Your task to perform on an android device: View the shopping cart on walmart. Add "razer blade" to the cart on walmart Image 0: 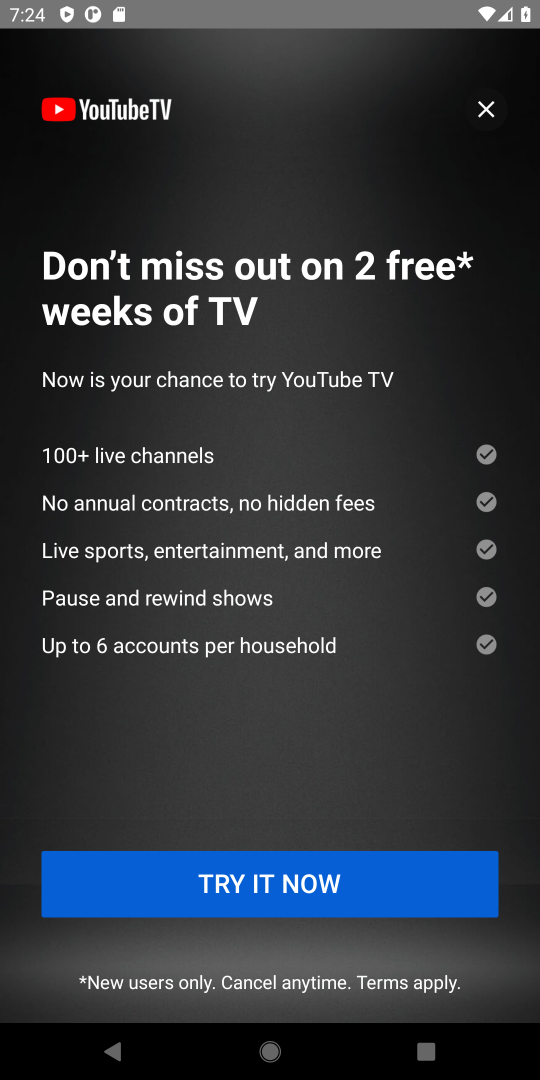
Step 0: press home button
Your task to perform on an android device: View the shopping cart on walmart. Add "razer blade" to the cart on walmart Image 1: 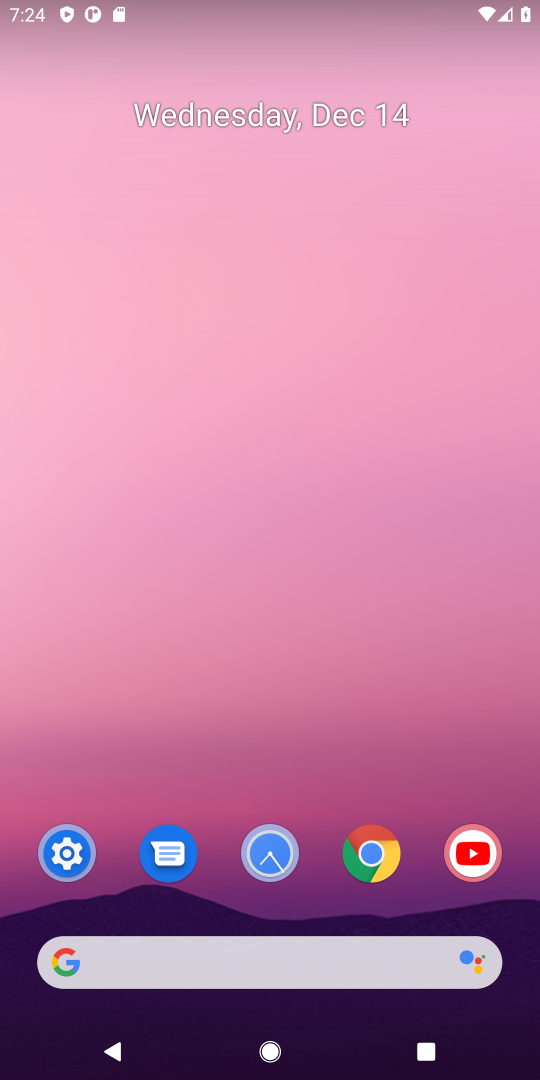
Step 1: click (381, 856)
Your task to perform on an android device: View the shopping cart on walmart. Add "razer blade" to the cart on walmart Image 2: 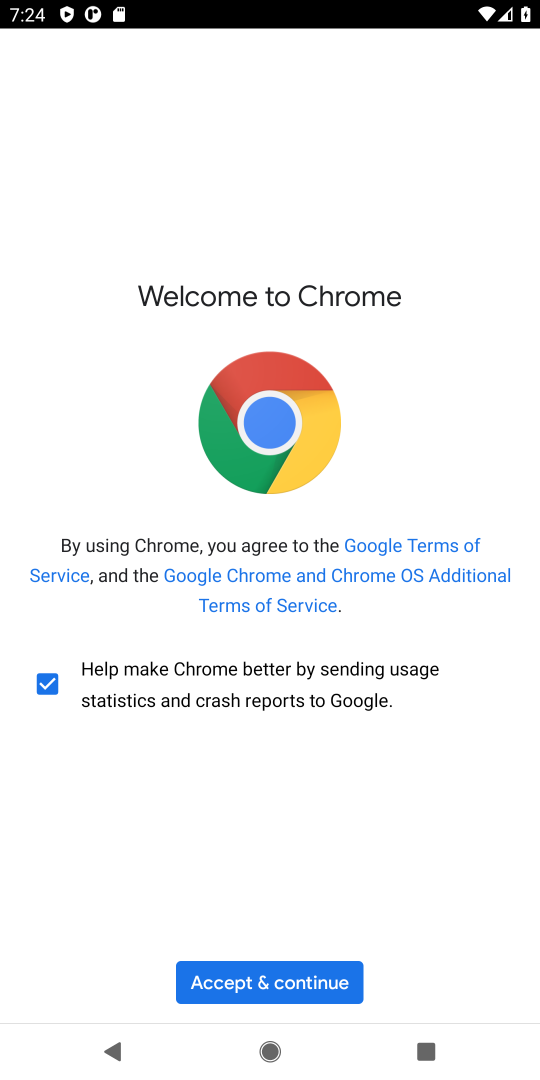
Step 2: click (306, 984)
Your task to perform on an android device: View the shopping cart on walmart. Add "razer blade" to the cart on walmart Image 3: 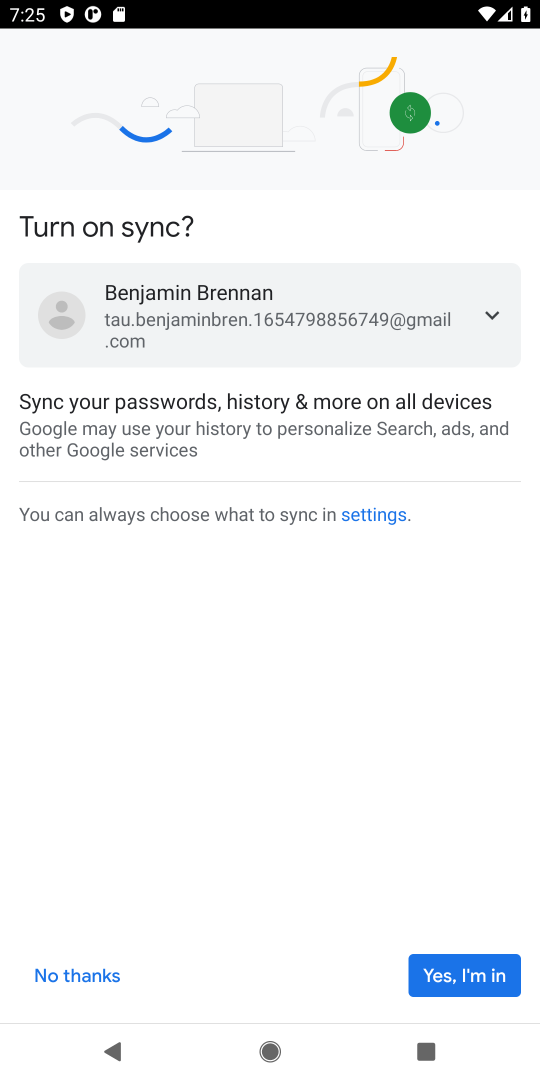
Step 3: click (454, 968)
Your task to perform on an android device: View the shopping cart on walmart. Add "razer blade" to the cart on walmart Image 4: 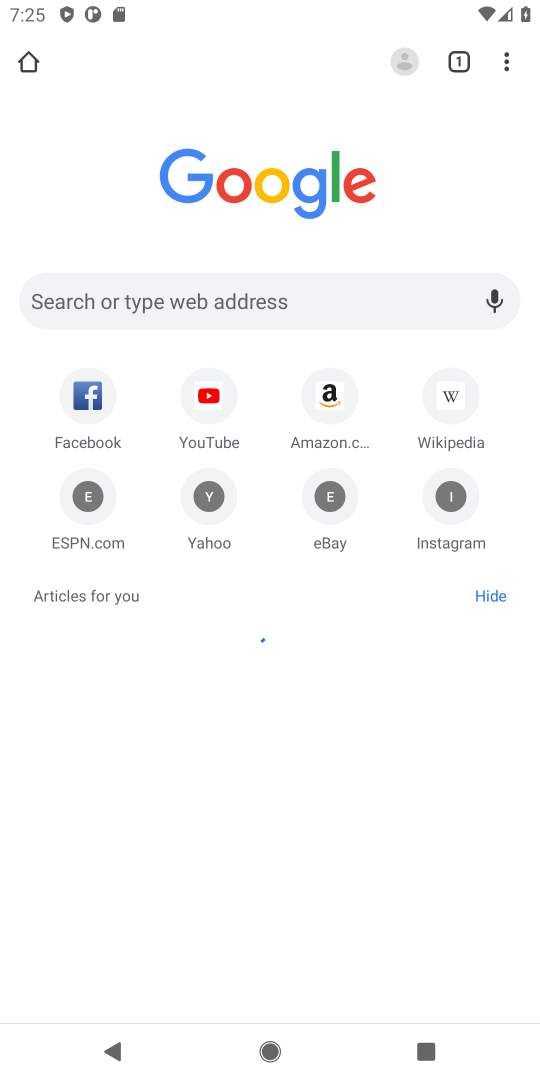
Step 4: click (310, 303)
Your task to perform on an android device: View the shopping cart on walmart. Add "razer blade" to the cart on walmart Image 5: 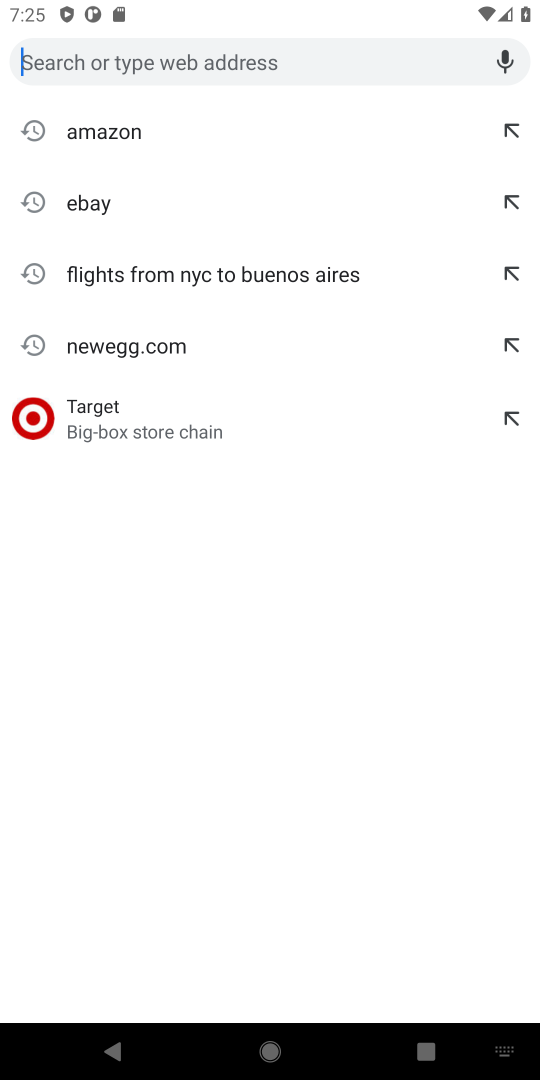
Step 5: type "walmart"
Your task to perform on an android device: View the shopping cart on walmart. Add "razer blade" to the cart on walmart Image 6: 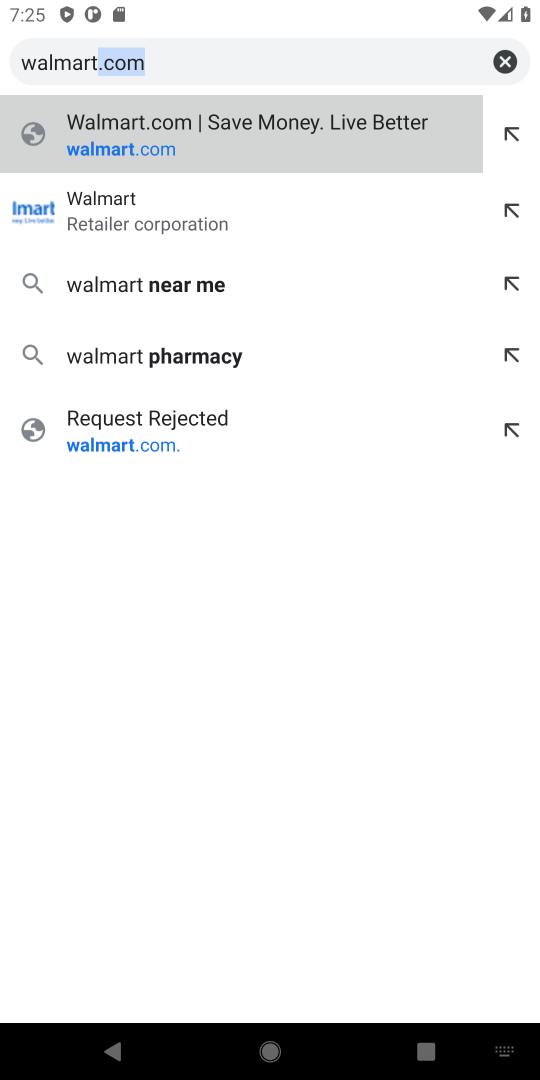
Step 6: click (385, 143)
Your task to perform on an android device: View the shopping cart on walmart. Add "razer blade" to the cart on walmart Image 7: 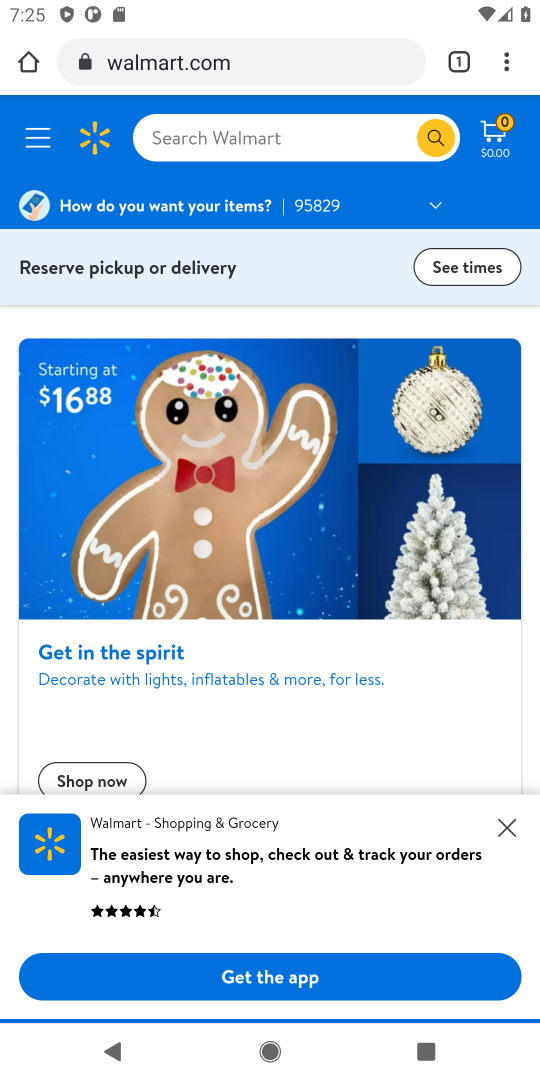
Step 7: click (305, 148)
Your task to perform on an android device: View the shopping cart on walmart. Add "razer blade" to the cart on walmart Image 8: 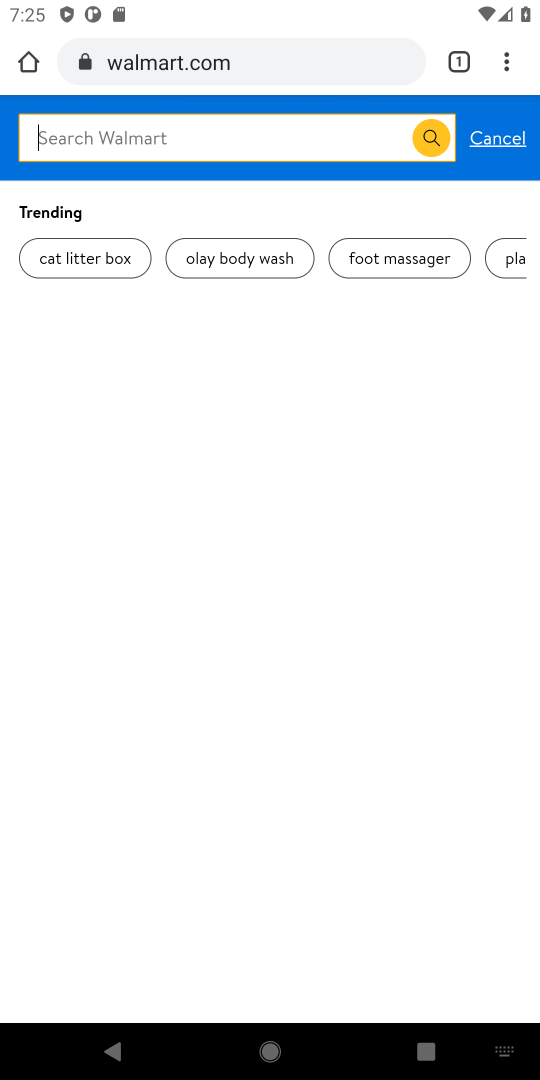
Step 8: type "razer blade"
Your task to perform on an android device: View the shopping cart on walmart. Add "razer blade" to the cart on walmart Image 9: 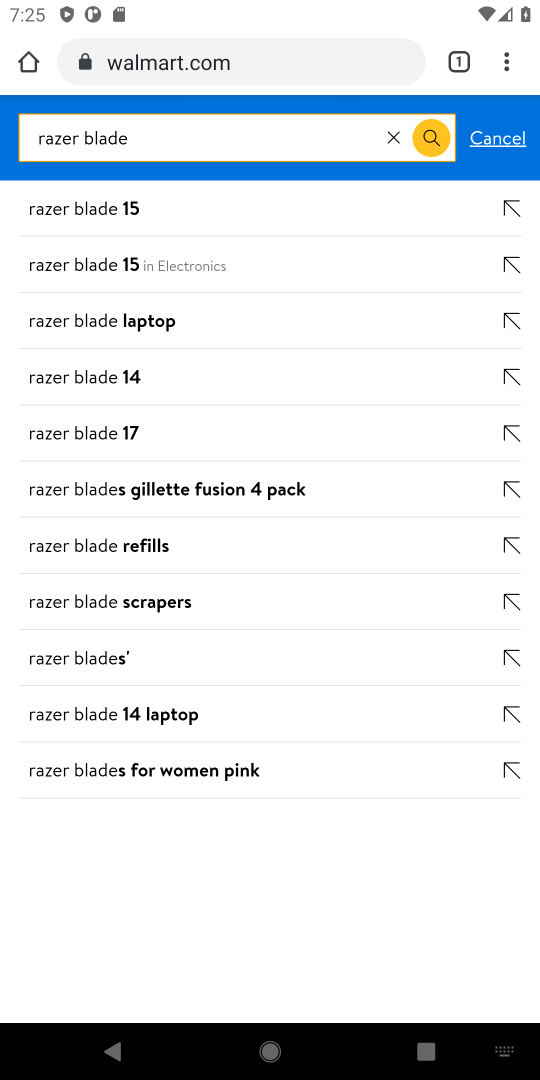
Step 9: click (127, 266)
Your task to perform on an android device: View the shopping cart on walmart. Add "razer blade" to the cart on walmart Image 10: 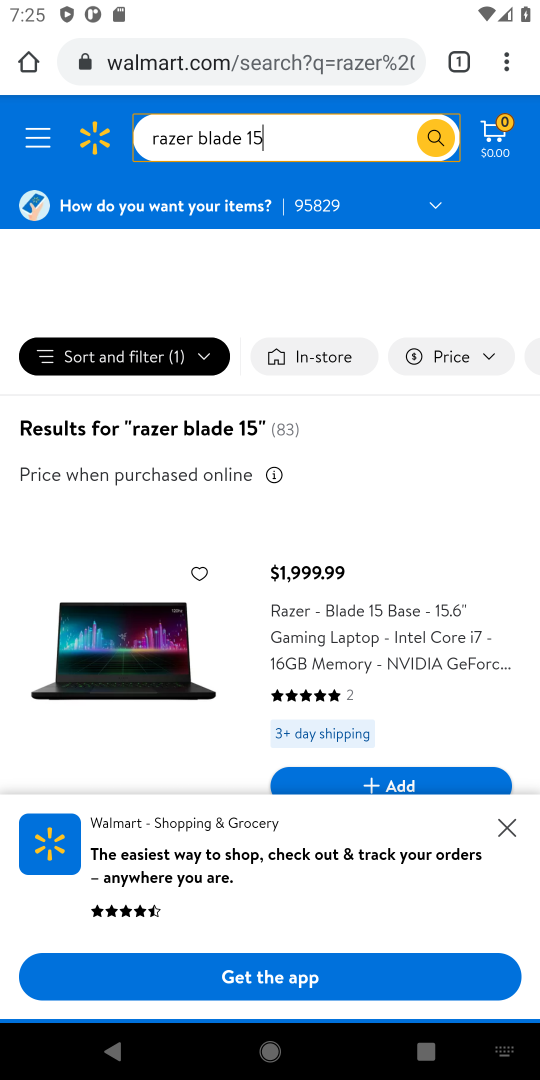
Step 10: click (514, 817)
Your task to perform on an android device: View the shopping cart on walmart. Add "razer blade" to the cart on walmart Image 11: 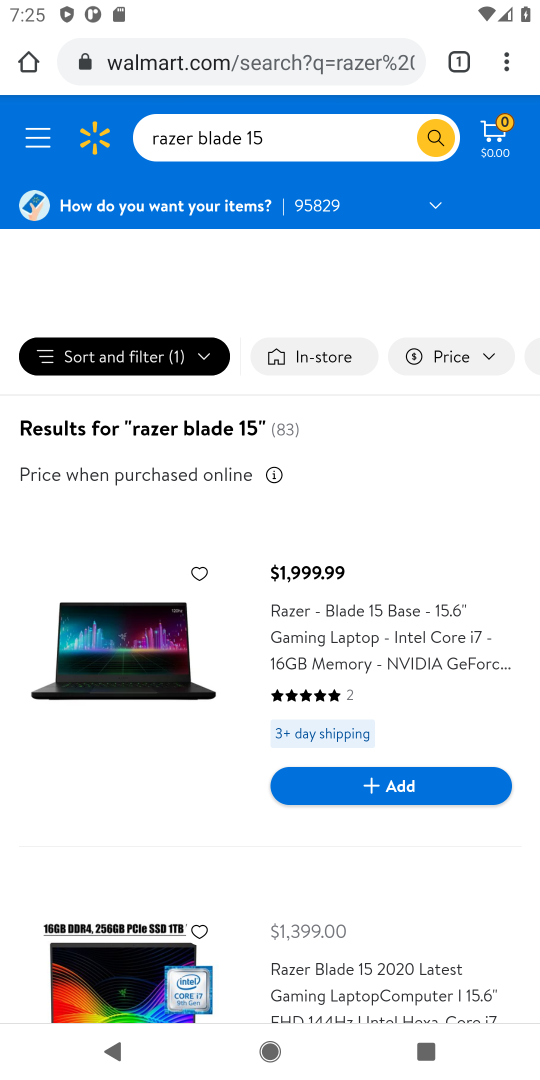
Step 11: click (426, 777)
Your task to perform on an android device: View the shopping cart on walmart. Add "razer blade" to the cart on walmart Image 12: 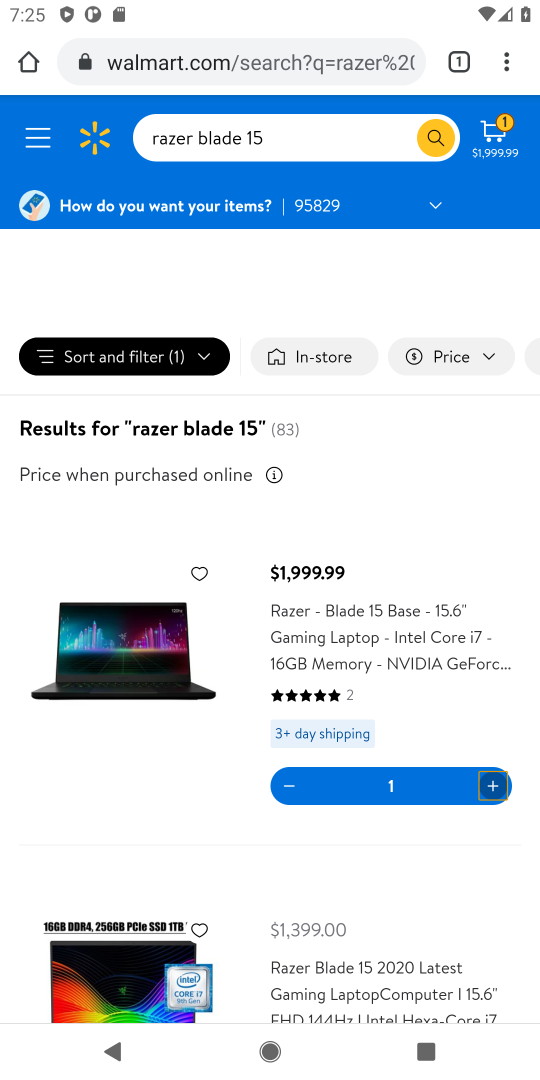
Step 12: task complete